Your task to perform on an android device: open a new tab in the chrome app Image 0: 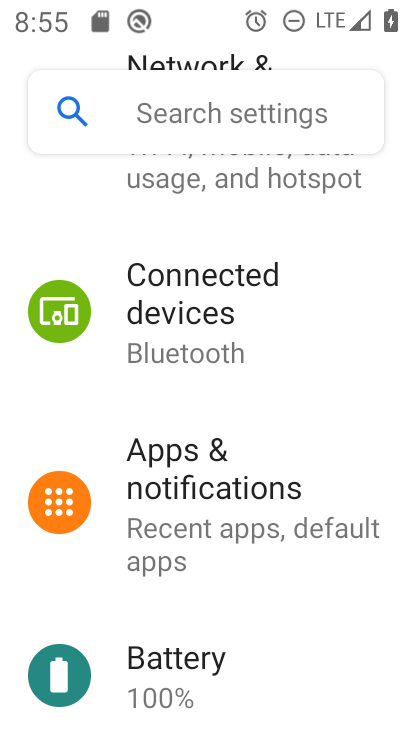
Step 0: press home button
Your task to perform on an android device: open a new tab in the chrome app Image 1: 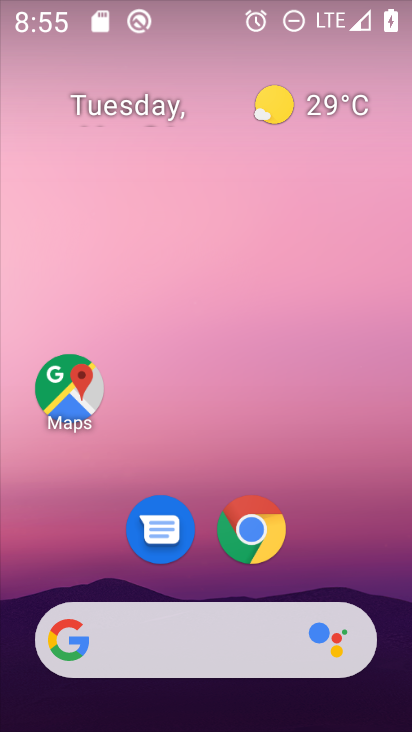
Step 1: drag from (401, 652) to (294, 0)
Your task to perform on an android device: open a new tab in the chrome app Image 2: 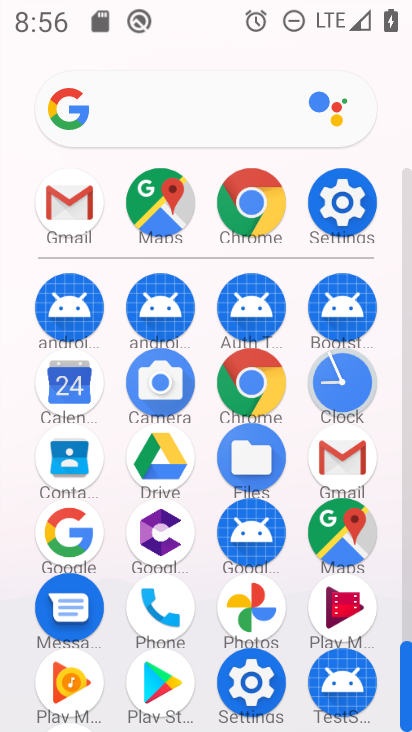
Step 2: click (254, 393)
Your task to perform on an android device: open a new tab in the chrome app Image 3: 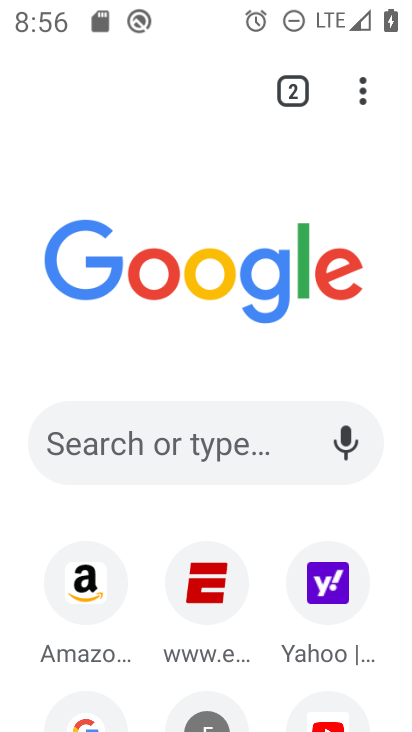
Step 3: click (370, 89)
Your task to perform on an android device: open a new tab in the chrome app Image 4: 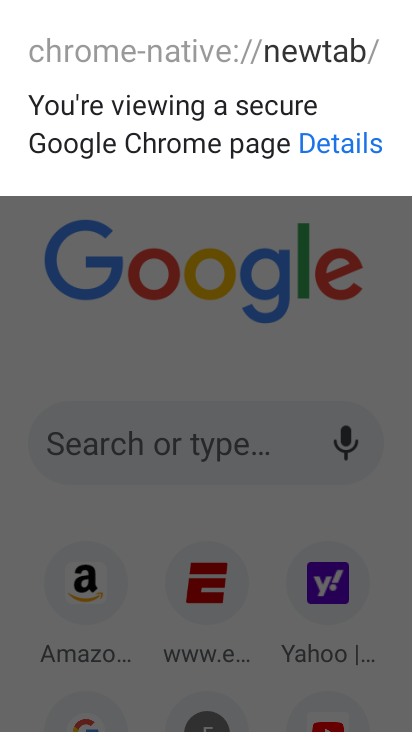
Step 4: press back button
Your task to perform on an android device: open a new tab in the chrome app Image 5: 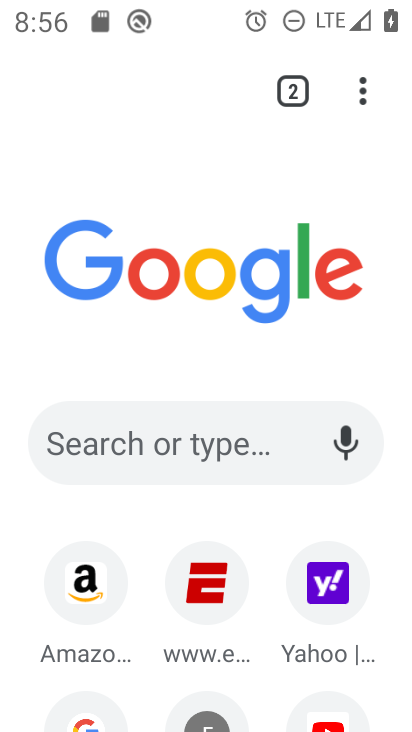
Step 5: click (357, 84)
Your task to perform on an android device: open a new tab in the chrome app Image 6: 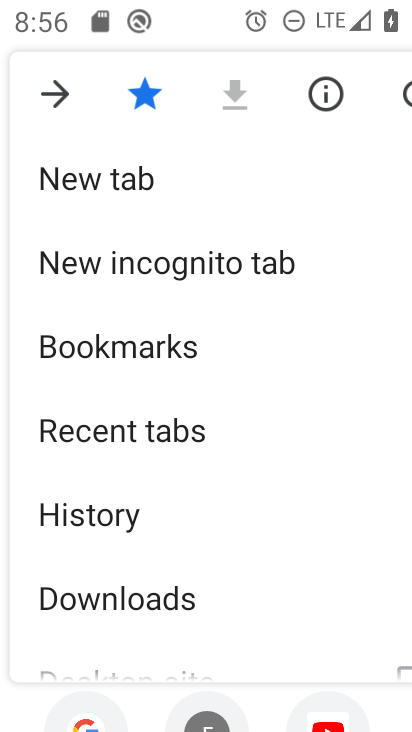
Step 6: click (208, 194)
Your task to perform on an android device: open a new tab in the chrome app Image 7: 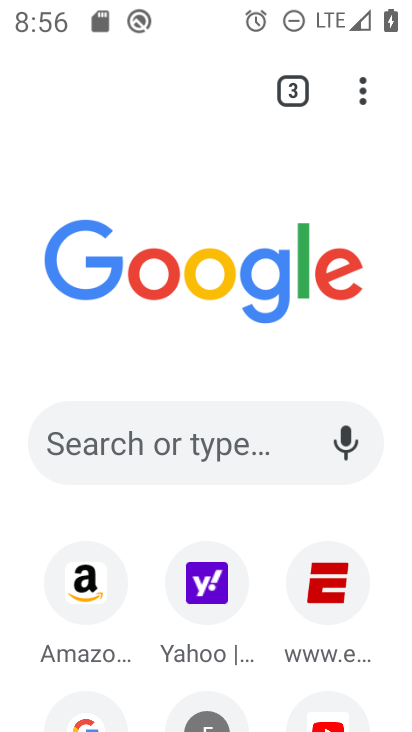
Step 7: task complete